Your task to perform on an android device: Open calendar and show me the fourth week of next month Image 0: 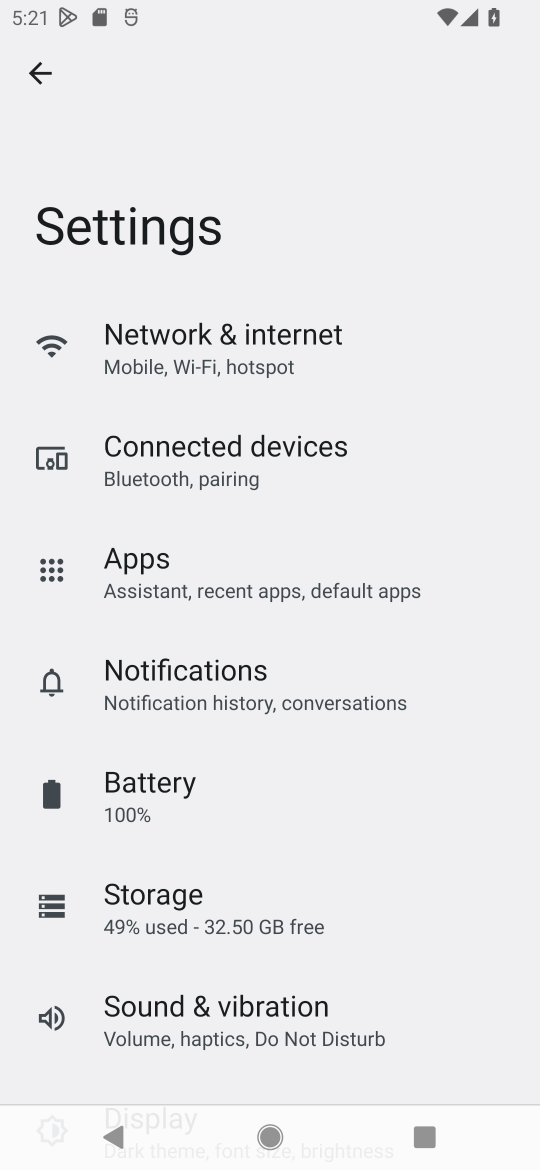
Step 0: press home button
Your task to perform on an android device: Open calendar and show me the fourth week of next month Image 1: 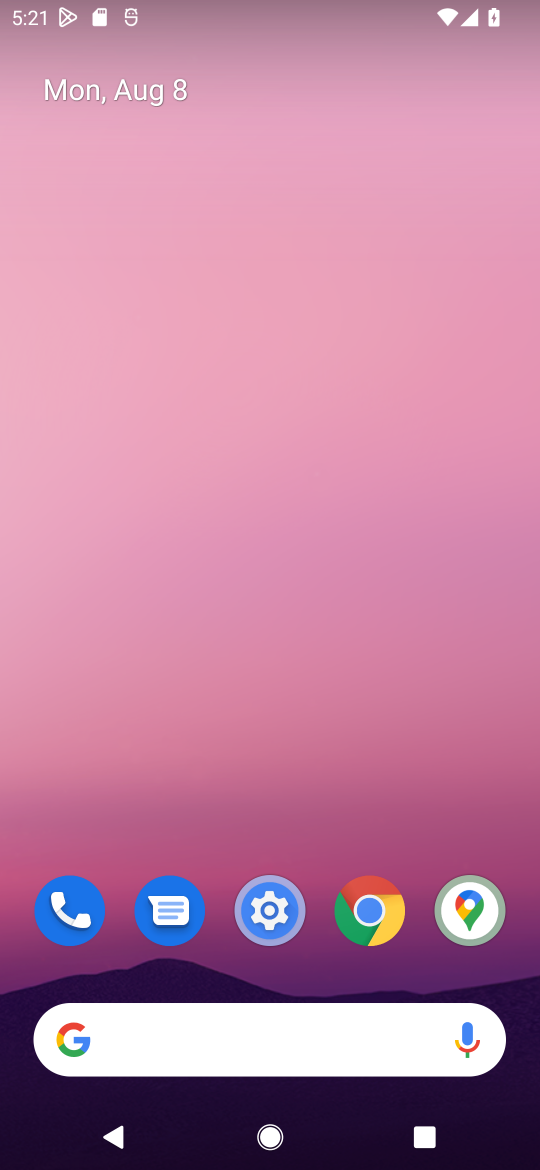
Step 1: drag from (106, 767) to (186, 134)
Your task to perform on an android device: Open calendar and show me the fourth week of next month Image 2: 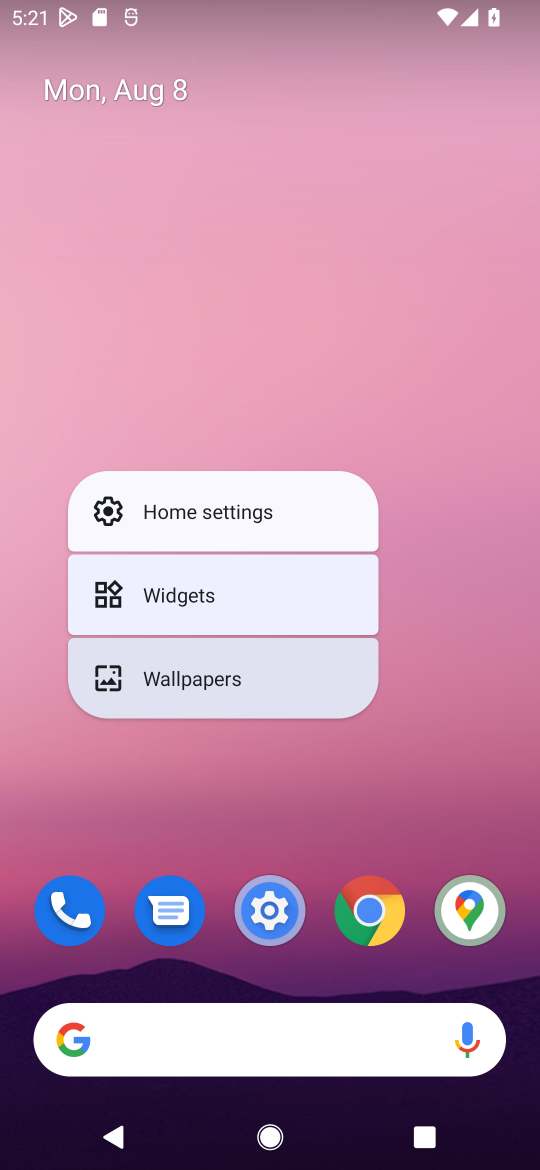
Step 2: click (406, 754)
Your task to perform on an android device: Open calendar and show me the fourth week of next month Image 3: 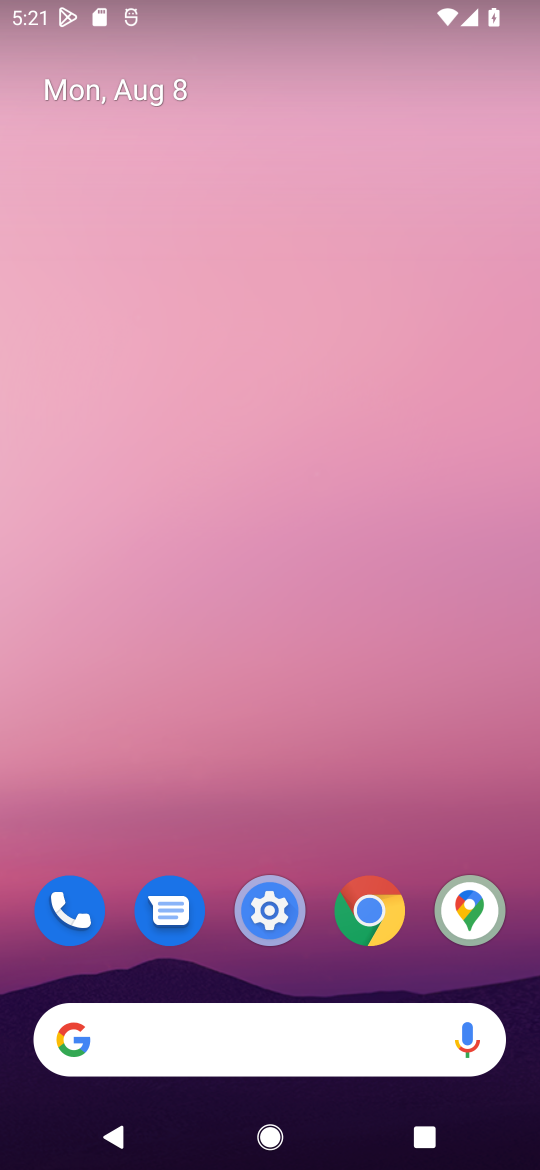
Step 3: drag from (405, 752) to (472, 229)
Your task to perform on an android device: Open calendar and show me the fourth week of next month Image 4: 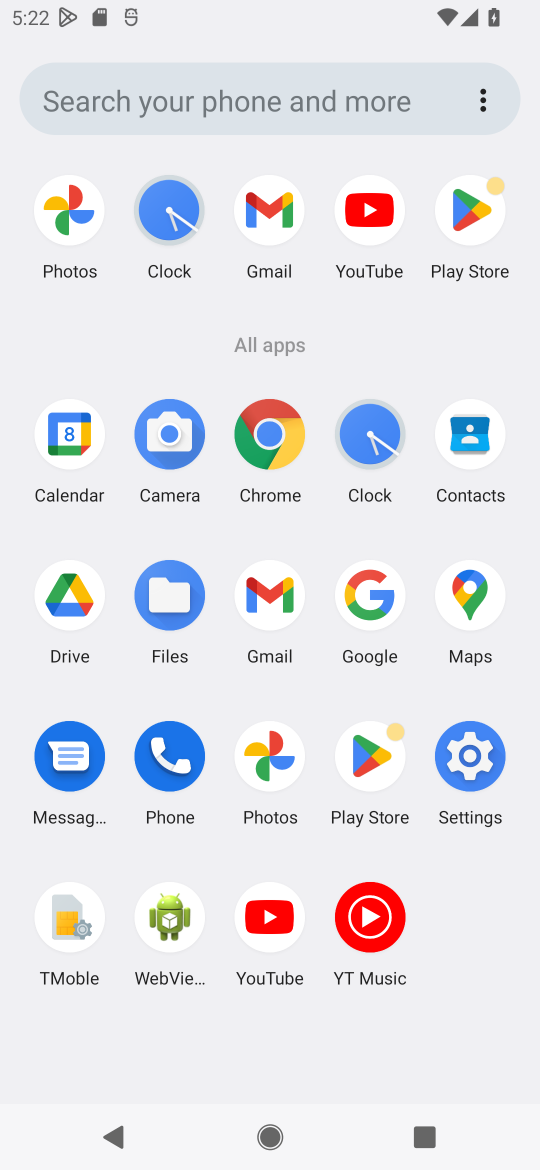
Step 4: click (74, 439)
Your task to perform on an android device: Open calendar and show me the fourth week of next month Image 5: 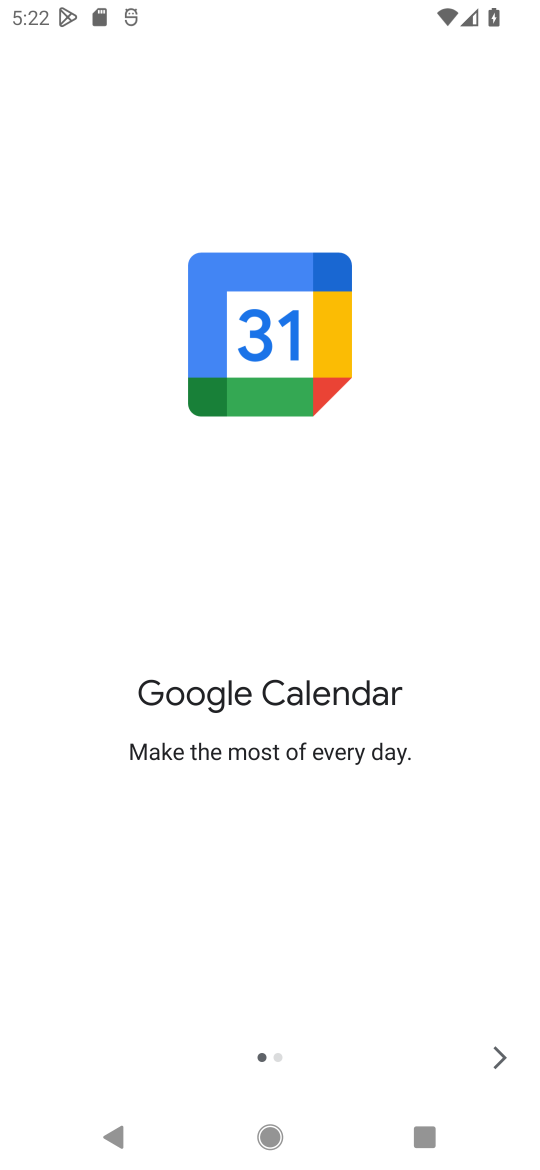
Step 5: click (499, 1051)
Your task to perform on an android device: Open calendar and show me the fourth week of next month Image 6: 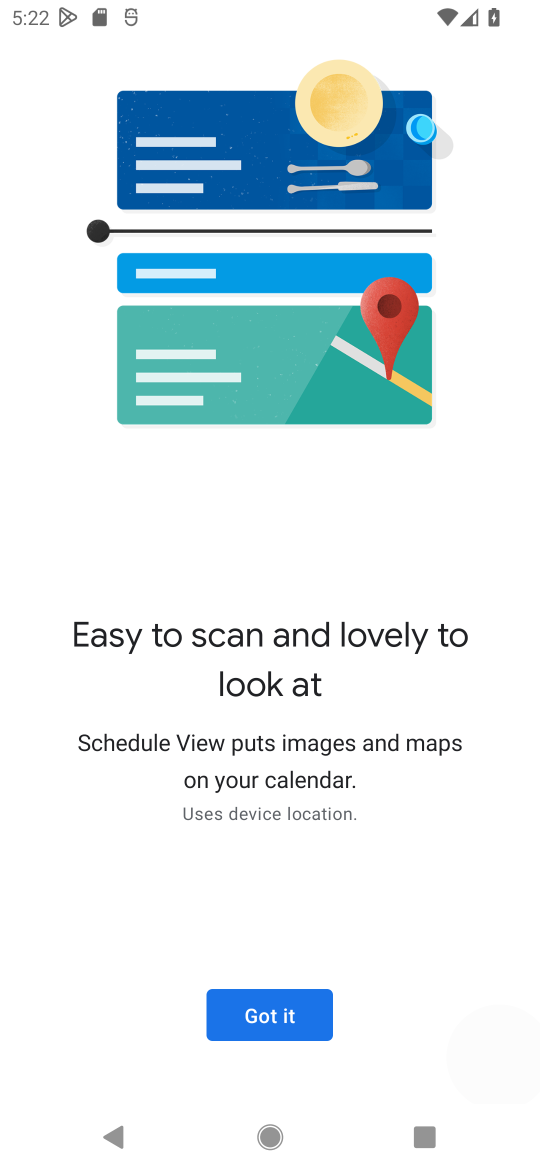
Step 6: click (499, 1051)
Your task to perform on an android device: Open calendar and show me the fourth week of next month Image 7: 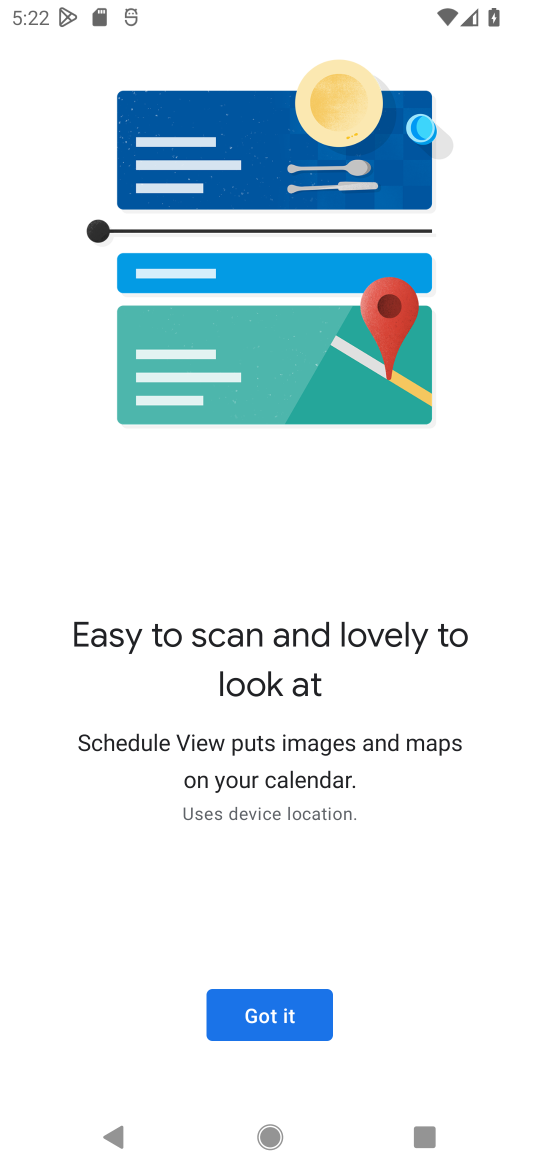
Step 7: click (499, 1051)
Your task to perform on an android device: Open calendar and show me the fourth week of next month Image 8: 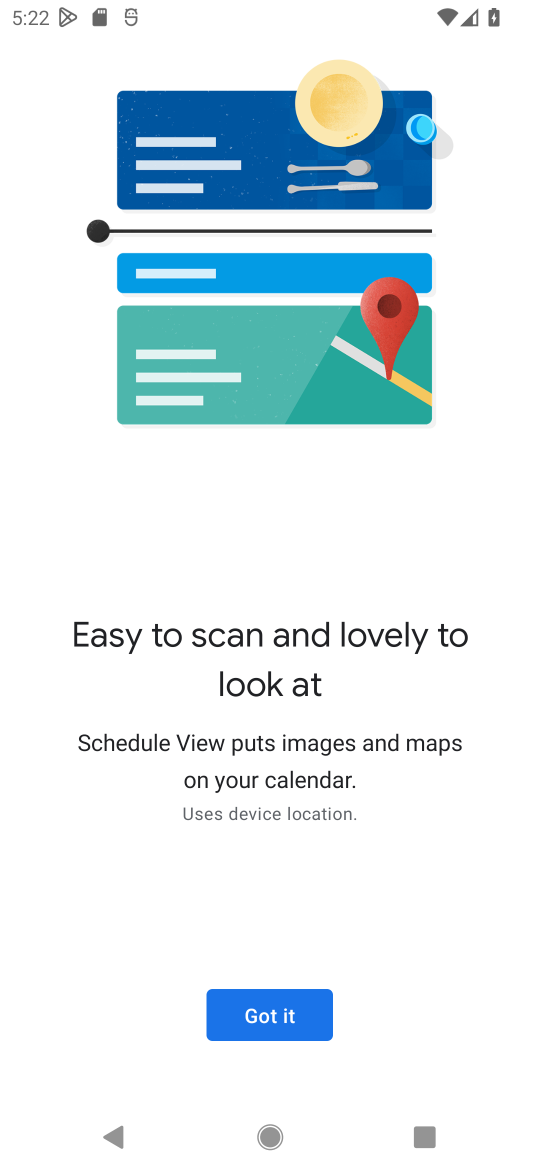
Step 8: click (259, 1026)
Your task to perform on an android device: Open calendar and show me the fourth week of next month Image 9: 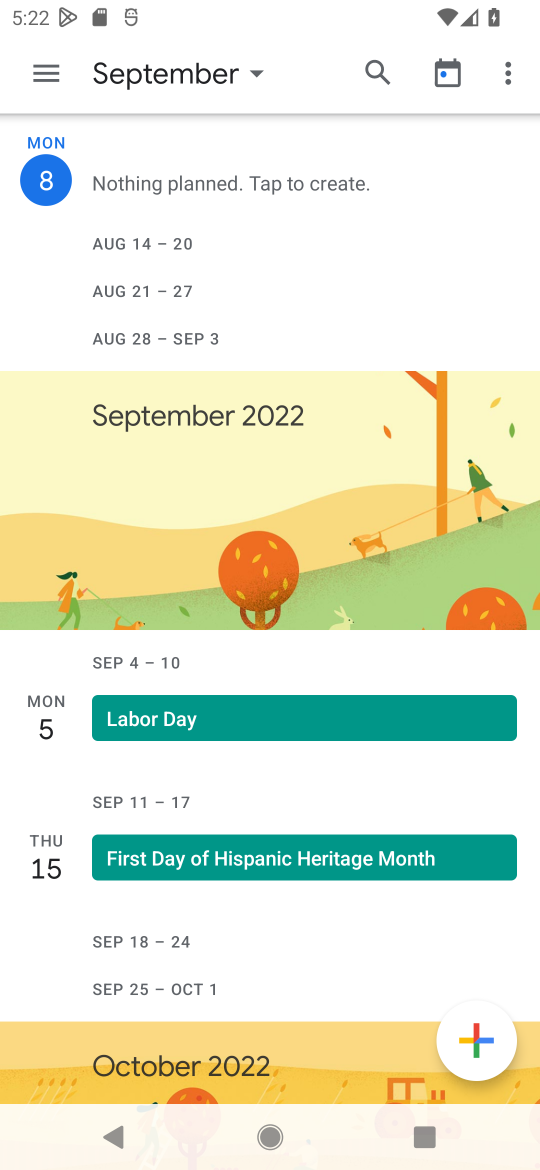
Step 9: click (49, 75)
Your task to perform on an android device: Open calendar and show me the fourth week of next month Image 10: 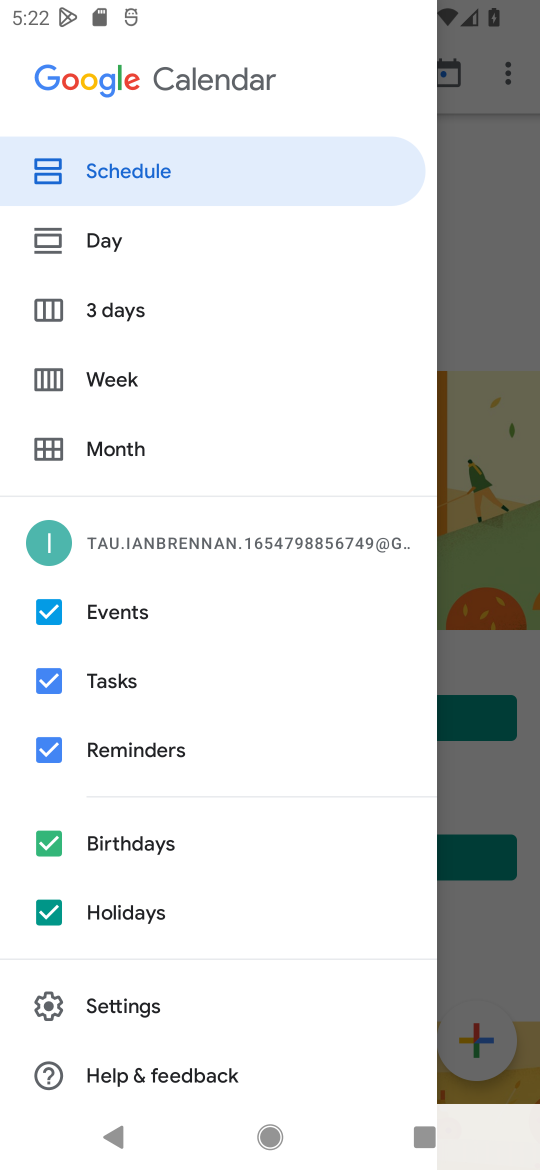
Step 10: click (107, 376)
Your task to perform on an android device: Open calendar and show me the fourth week of next month Image 11: 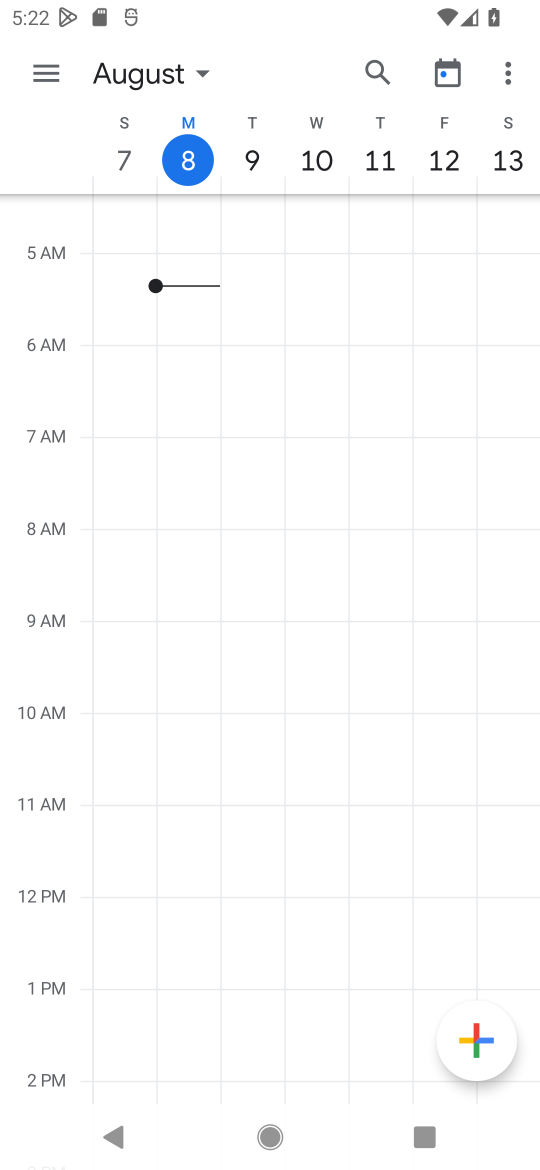
Step 11: click (202, 69)
Your task to perform on an android device: Open calendar and show me the fourth week of next month Image 12: 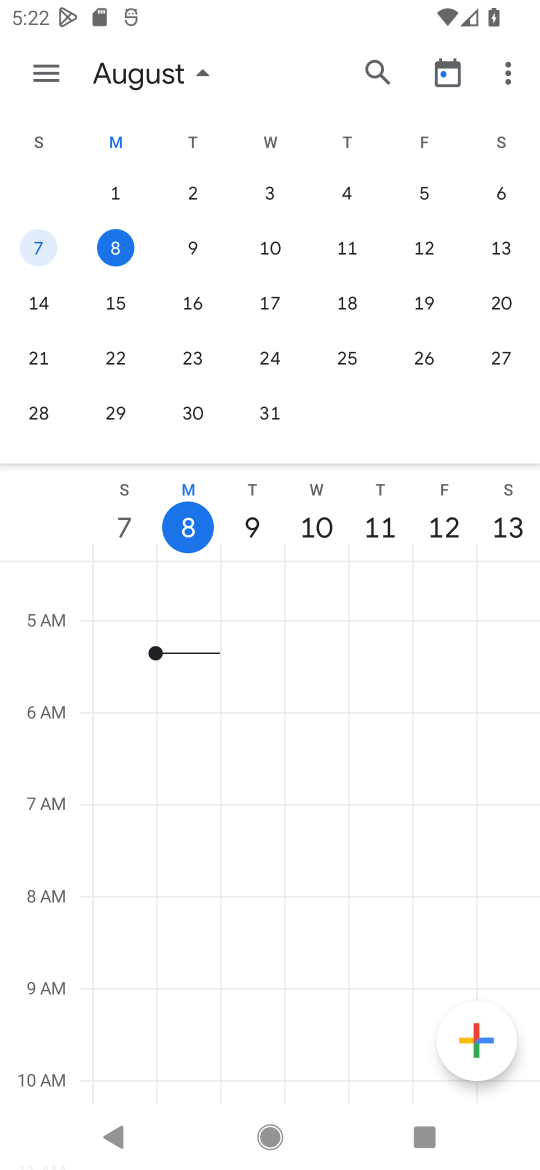
Step 12: drag from (375, 399) to (12, 333)
Your task to perform on an android device: Open calendar and show me the fourth week of next month Image 13: 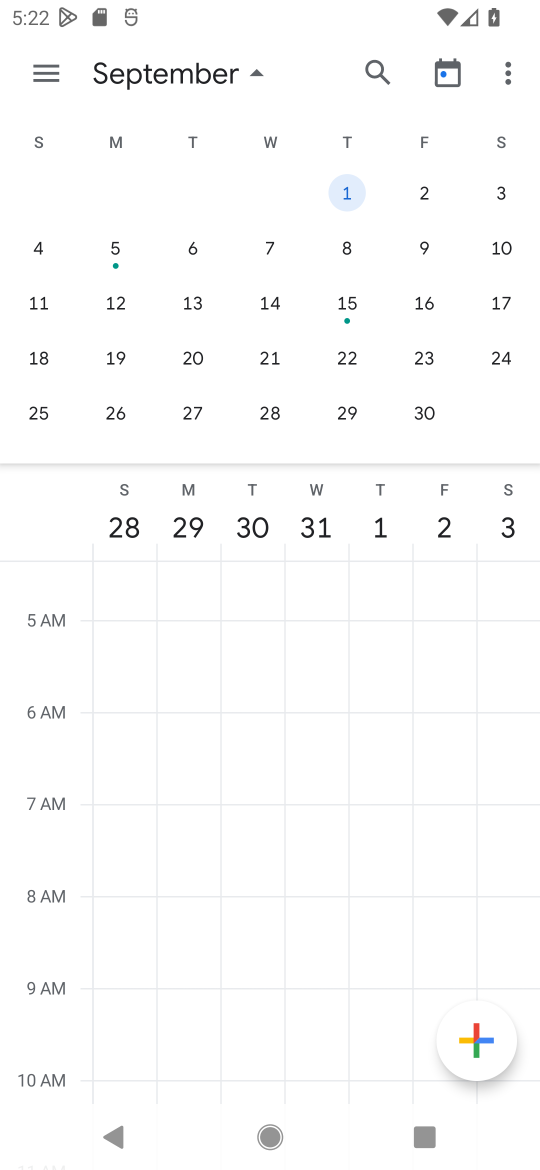
Step 13: click (48, 73)
Your task to perform on an android device: Open calendar and show me the fourth week of next month Image 14: 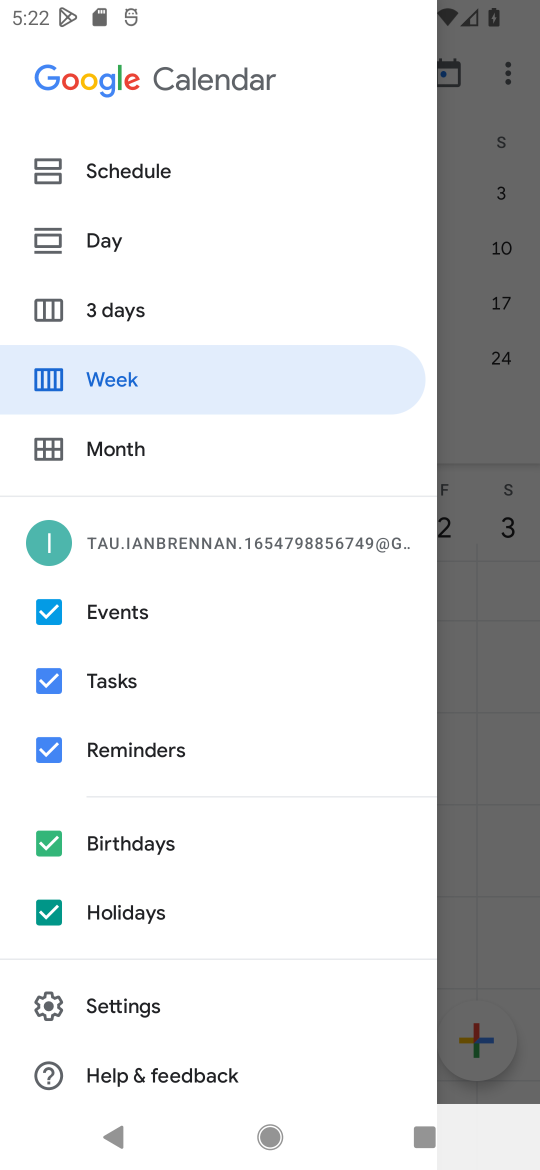
Step 14: click (110, 392)
Your task to perform on an android device: Open calendar and show me the fourth week of next month Image 15: 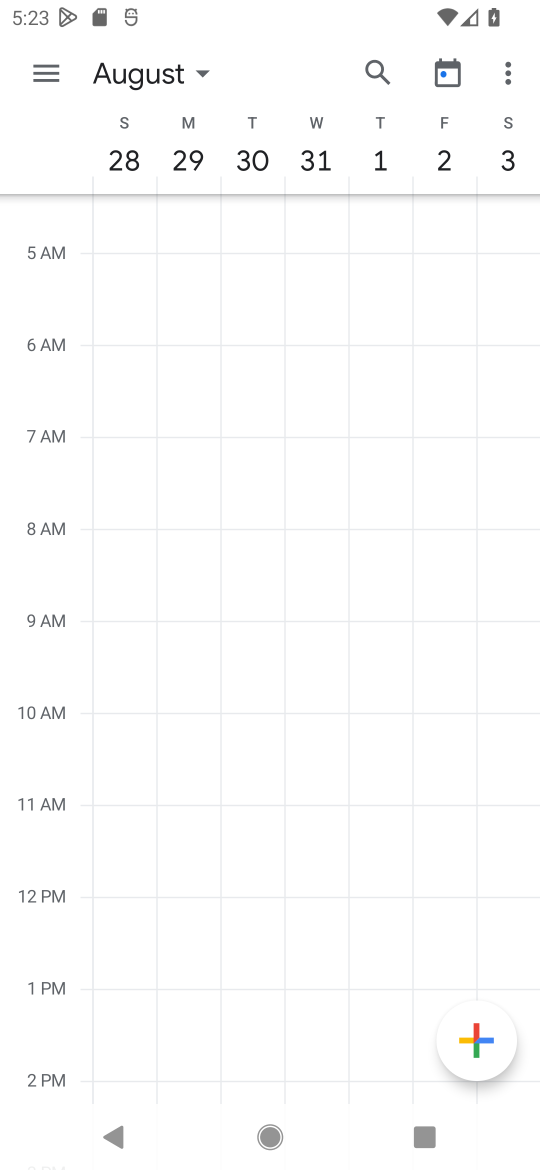
Step 15: task complete